Your task to perform on an android device: Search for pizza restaurants on Maps Image 0: 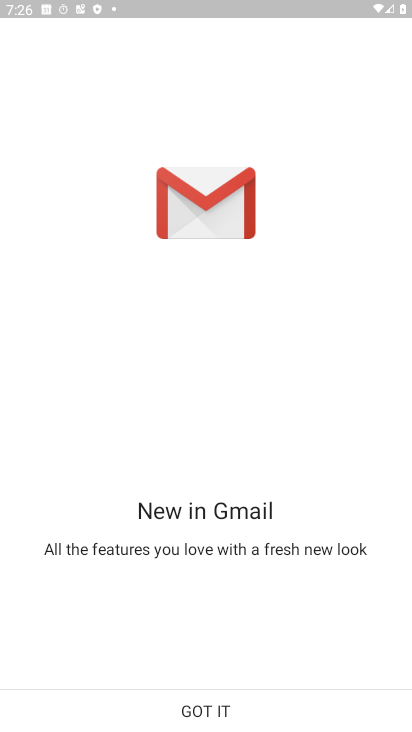
Step 0: press home button
Your task to perform on an android device: Search for pizza restaurants on Maps Image 1: 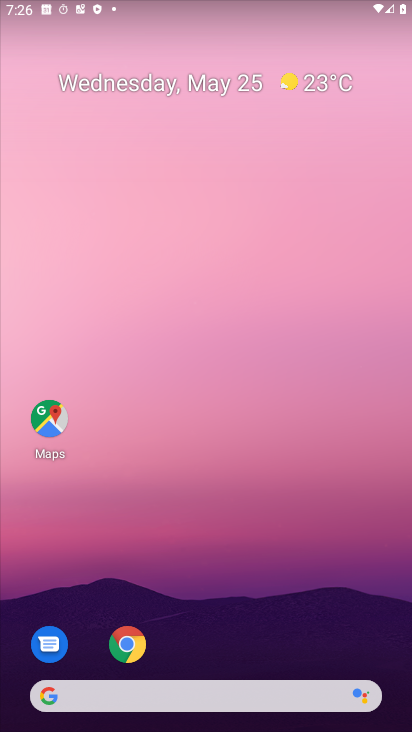
Step 1: drag from (229, 715) to (211, 131)
Your task to perform on an android device: Search for pizza restaurants on Maps Image 2: 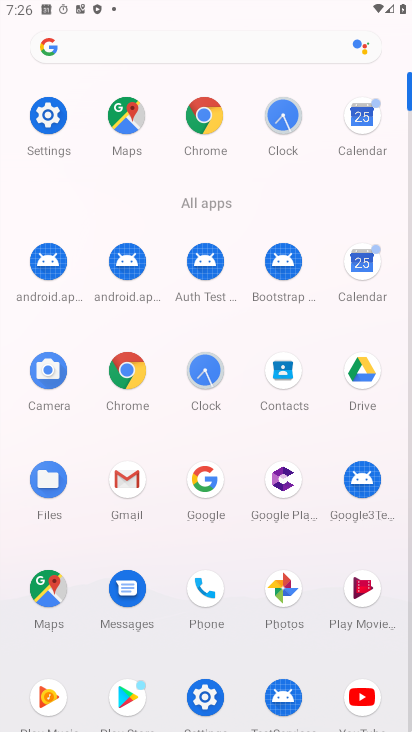
Step 2: click (115, 115)
Your task to perform on an android device: Search for pizza restaurants on Maps Image 3: 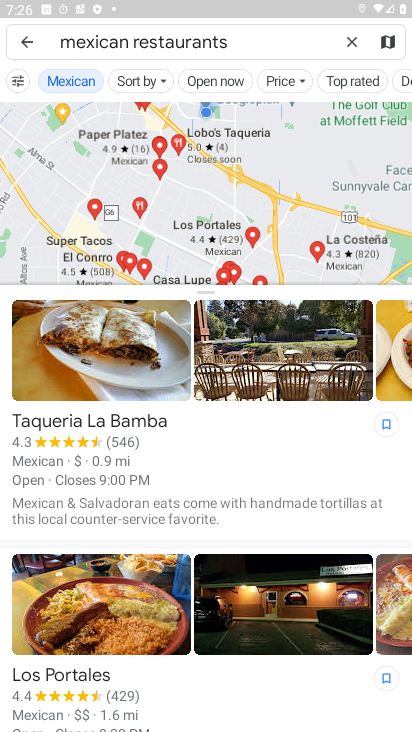
Step 3: click (351, 37)
Your task to perform on an android device: Search for pizza restaurants on Maps Image 4: 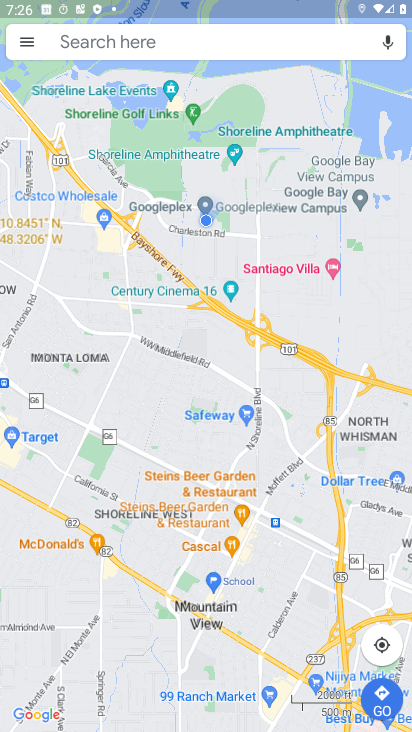
Step 4: click (245, 56)
Your task to perform on an android device: Search for pizza restaurants on Maps Image 5: 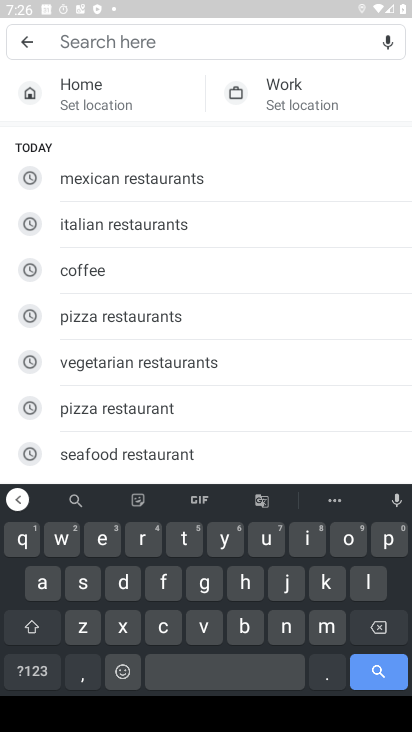
Step 5: click (206, 414)
Your task to perform on an android device: Search for pizza restaurants on Maps Image 6: 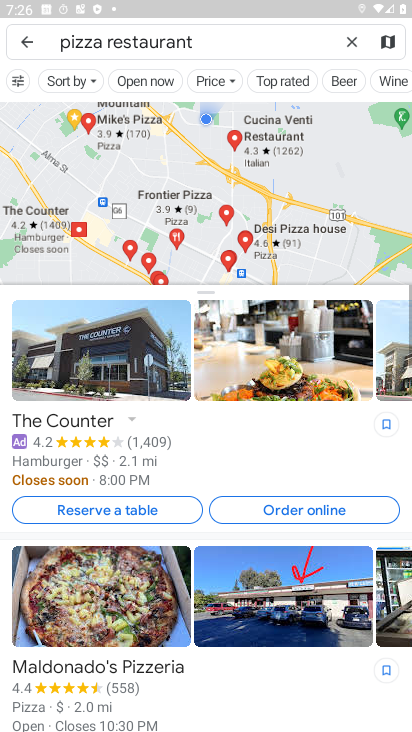
Step 6: task complete